Your task to perform on an android device: What is the recent news? Image 0: 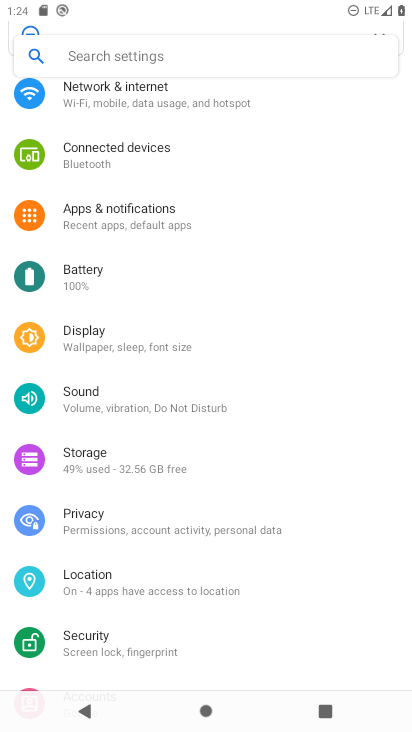
Step 0: press home button
Your task to perform on an android device: What is the recent news? Image 1: 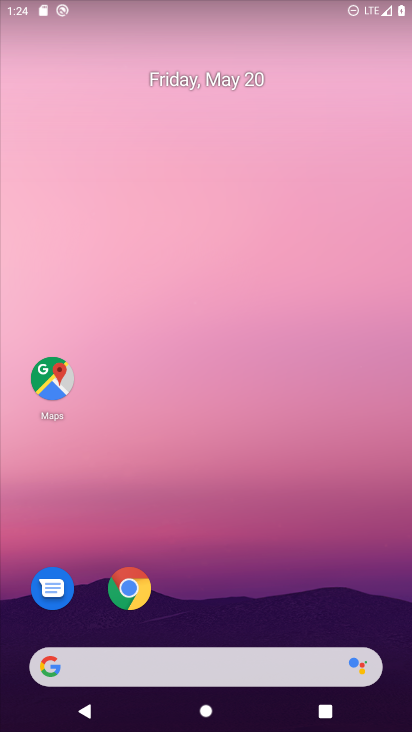
Step 1: task complete